Your task to perform on an android device: toggle airplane mode Image 0: 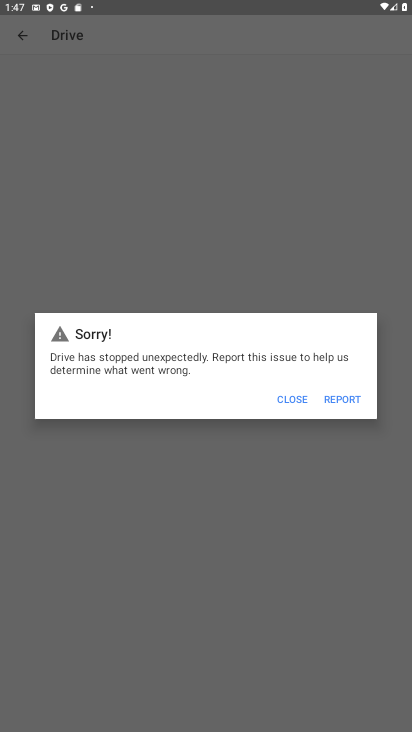
Step 0: press home button
Your task to perform on an android device: toggle airplane mode Image 1: 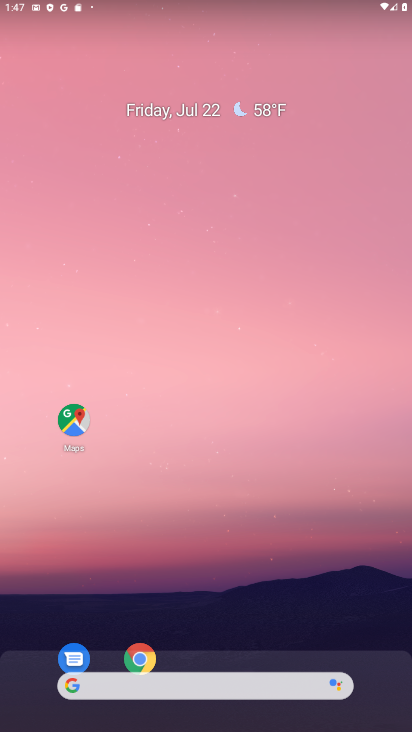
Step 1: drag from (196, 15) to (208, 491)
Your task to perform on an android device: toggle airplane mode Image 2: 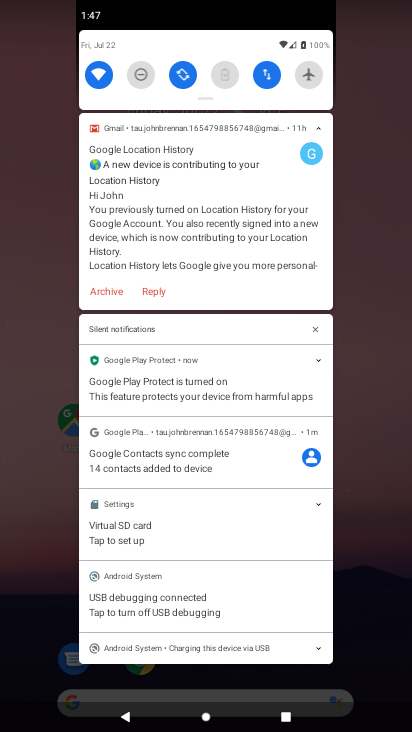
Step 2: click (302, 72)
Your task to perform on an android device: toggle airplane mode Image 3: 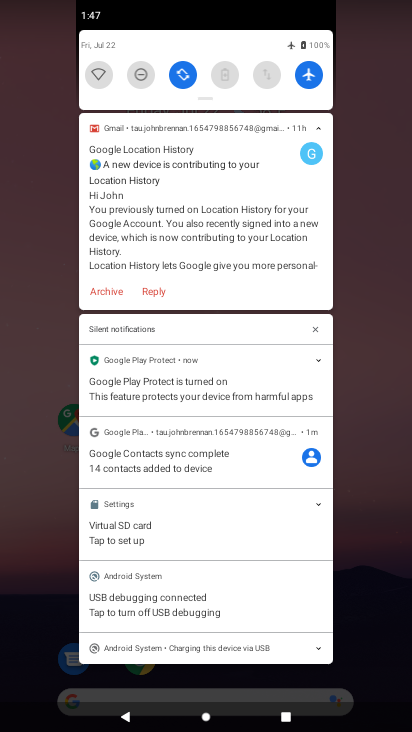
Step 3: task complete